Your task to perform on an android device: toggle sleep mode Image 0: 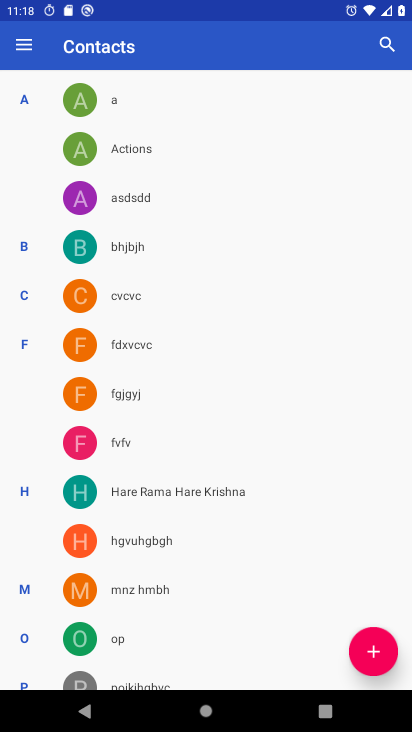
Step 0: press back button
Your task to perform on an android device: toggle sleep mode Image 1: 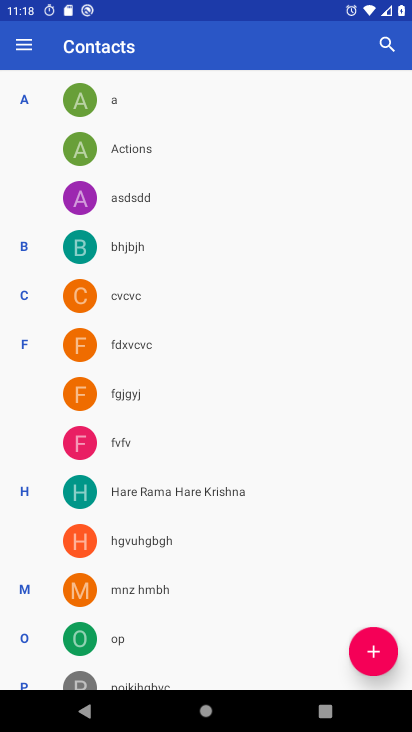
Step 1: press back button
Your task to perform on an android device: toggle sleep mode Image 2: 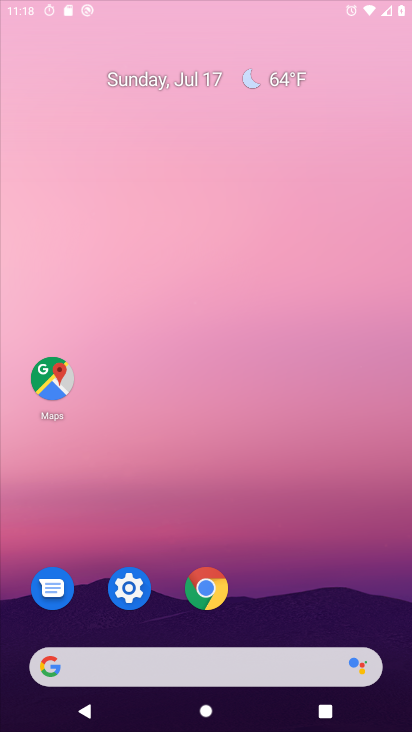
Step 2: press back button
Your task to perform on an android device: toggle sleep mode Image 3: 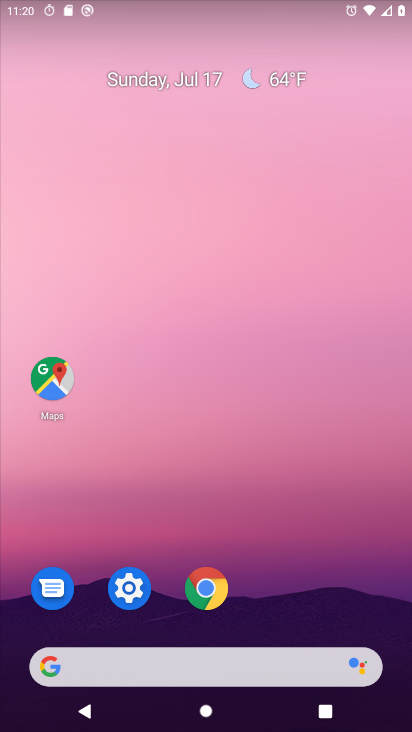
Step 3: drag from (195, 565) to (155, 282)
Your task to perform on an android device: toggle sleep mode Image 4: 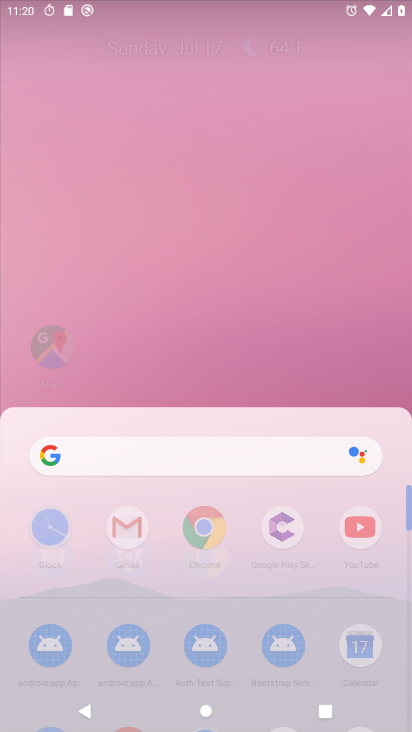
Step 4: drag from (230, 583) to (128, 15)
Your task to perform on an android device: toggle sleep mode Image 5: 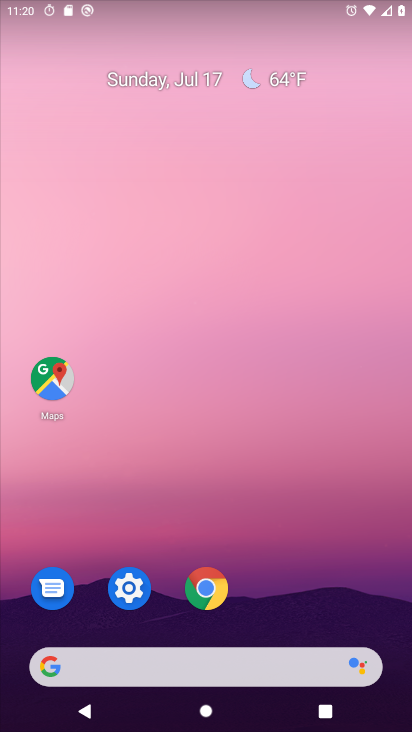
Step 5: drag from (292, 489) to (225, 207)
Your task to perform on an android device: toggle sleep mode Image 6: 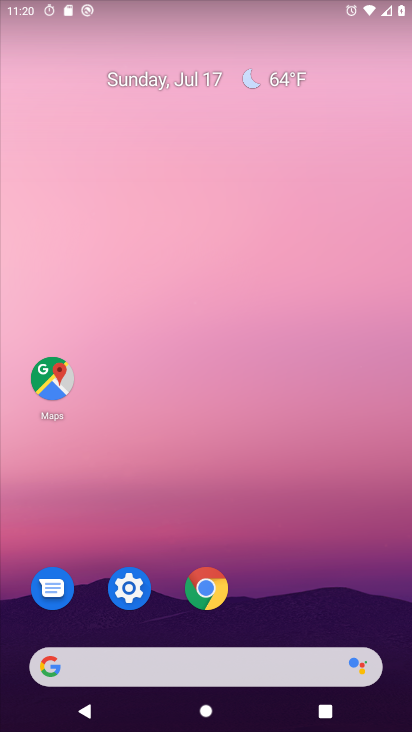
Step 6: drag from (291, 464) to (247, 130)
Your task to perform on an android device: toggle sleep mode Image 7: 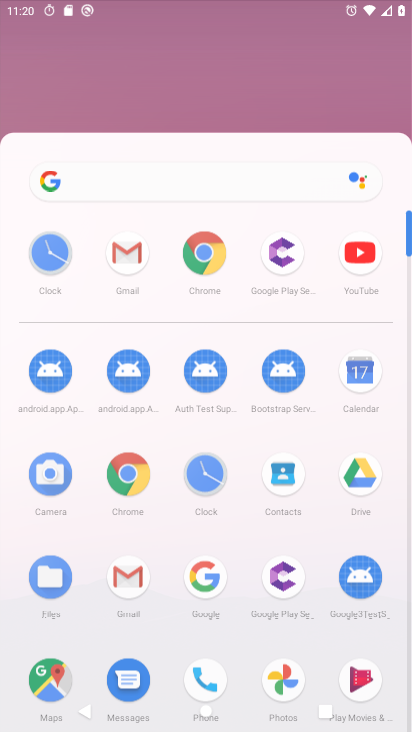
Step 7: drag from (284, 639) to (258, 118)
Your task to perform on an android device: toggle sleep mode Image 8: 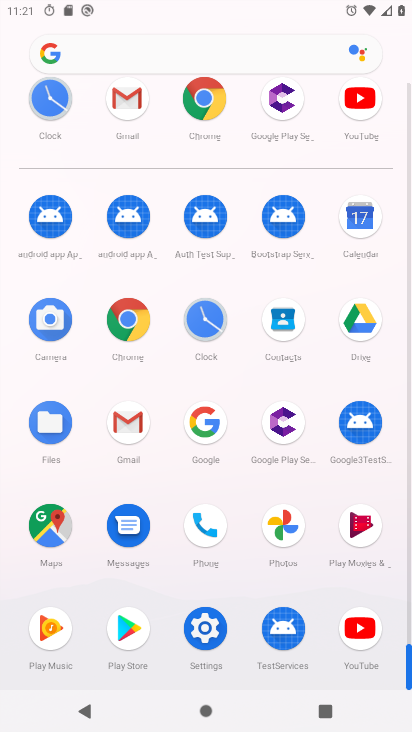
Step 8: click (190, 631)
Your task to perform on an android device: toggle sleep mode Image 9: 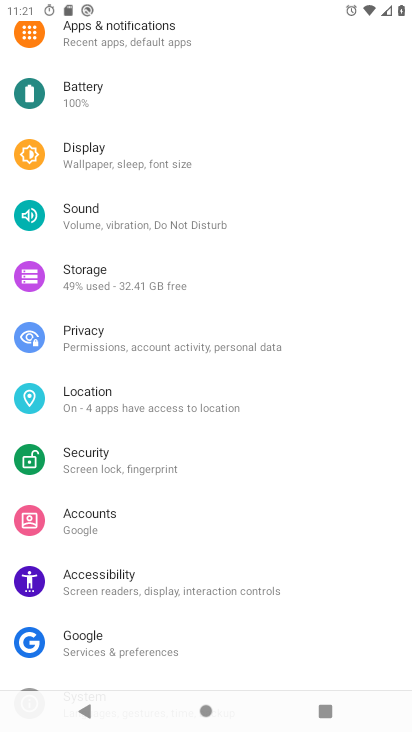
Step 9: click (147, 160)
Your task to perform on an android device: toggle sleep mode Image 10: 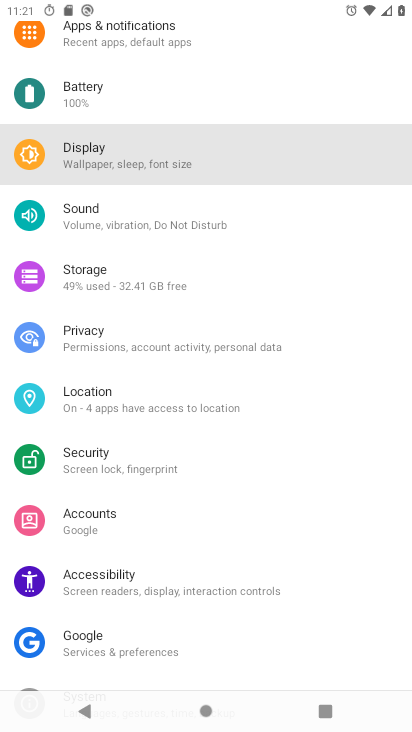
Step 10: click (143, 160)
Your task to perform on an android device: toggle sleep mode Image 11: 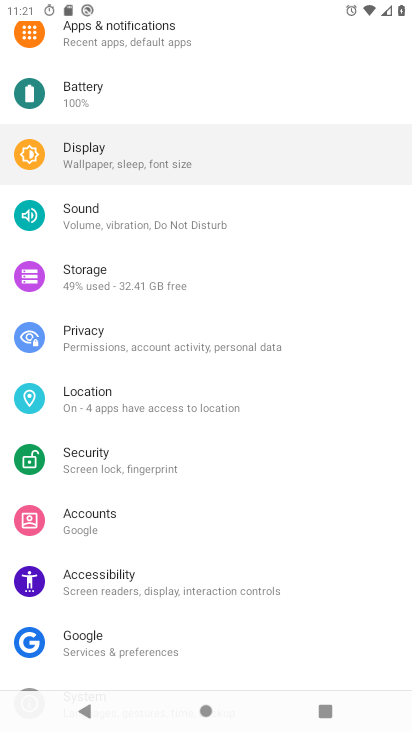
Step 11: click (134, 166)
Your task to perform on an android device: toggle sleep mode Image 12: 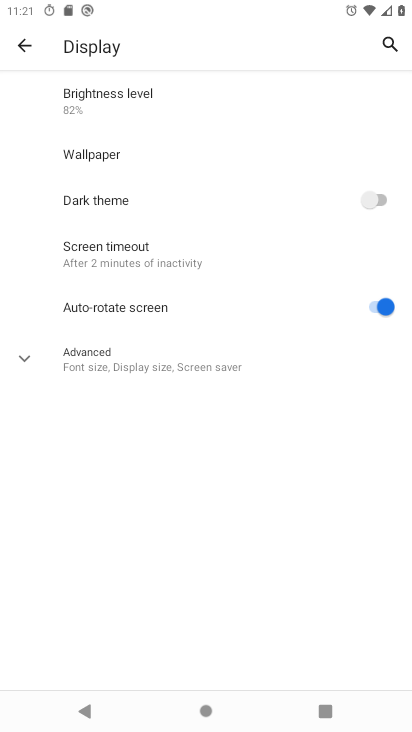
Step 12: click (108, 249)
Your task to perform on an android device: toggle sleep mode Image 13: 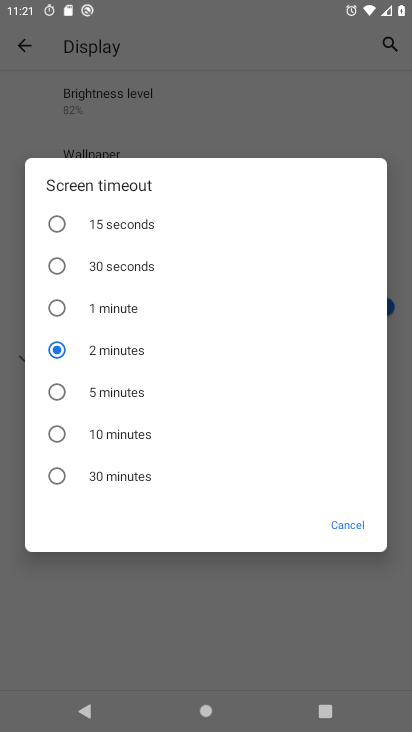
Step 13: click (53, 394)
Your task to perform on an android device: toggle sleep mode Image 14: 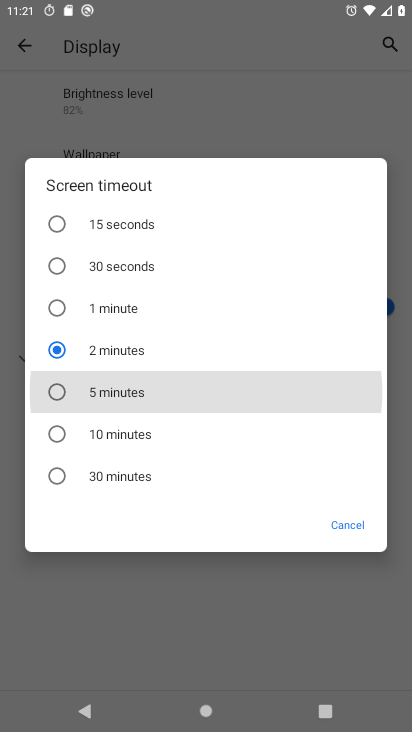
Step 14: click (56, 394)
Your task to perform on an android device: toggle sleep mode Image 15: 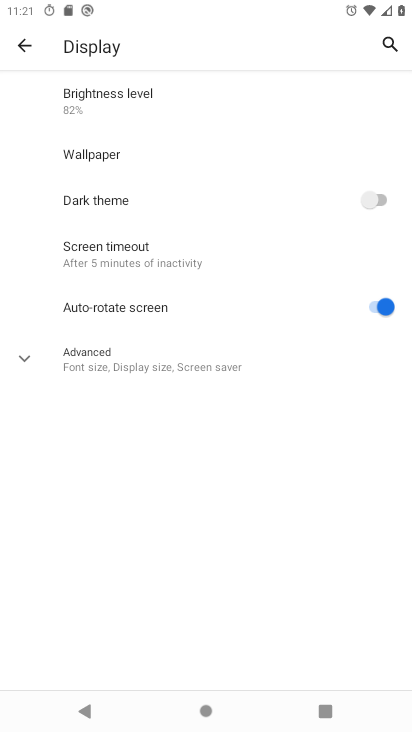
Step 15: task complete